Your task to perform on an android device: search for starred emails in the gmail app Image 0: 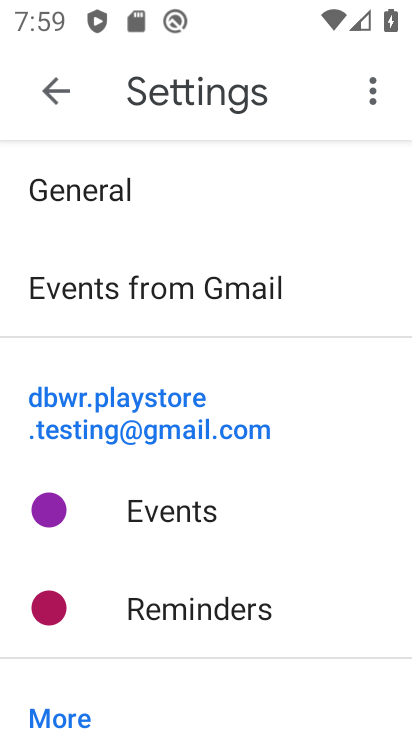
Step 0: press home button
Your task to perform on an android device: search for starred emails in the gmail app Image 1: 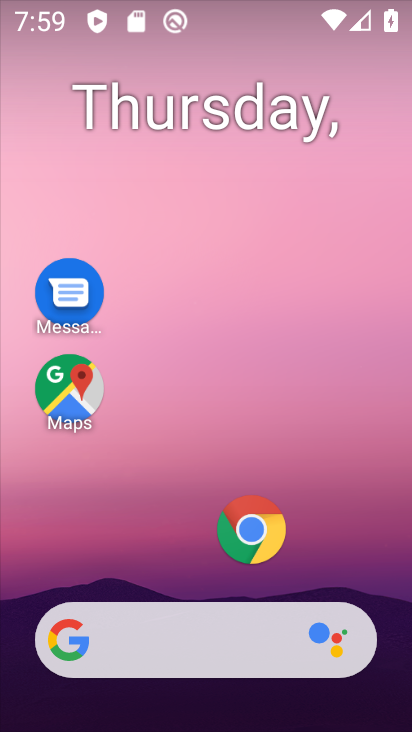
Step 1: drag from (181, 575) to (272, 7)
Your task to perform on an android device: search for starred emails in the gmail app Image 2: 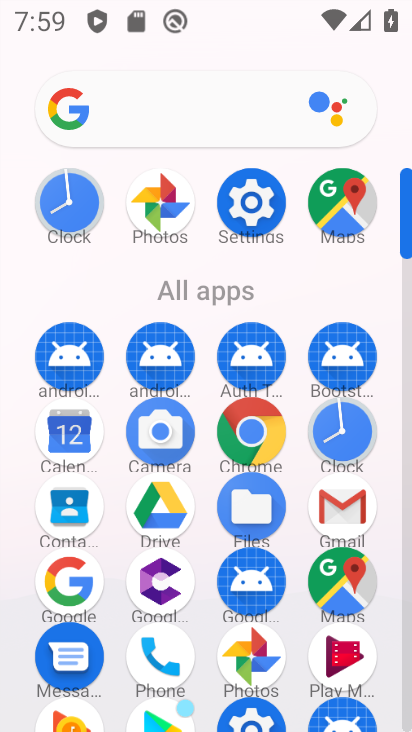
Step 2: click (344, 503)
Your task to perform on an android device: search for starred emails in the gmail app Image 3: 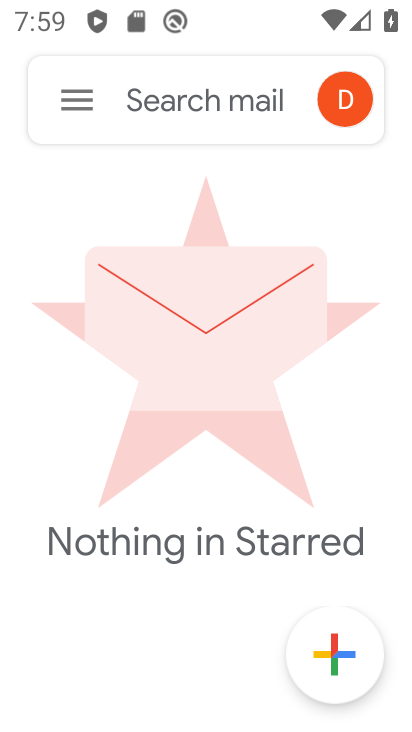
Step 3: task complete